Your task to perform on an android device: When is my next meeting? Image 0: 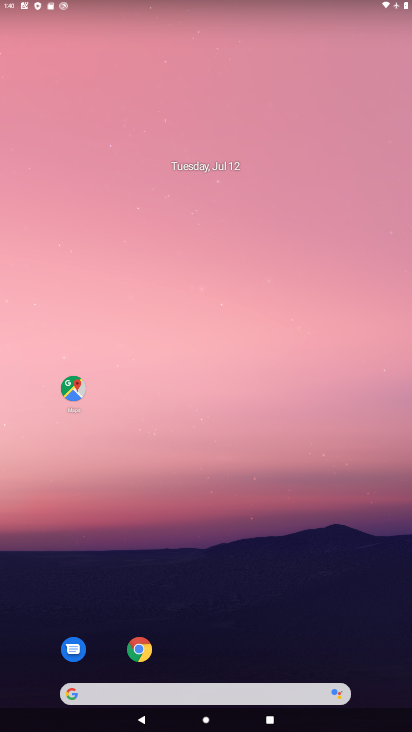
Step 0: drag from (272, 616) to (231, 134)
Your task to perform on an android device: When is my next meeting? Image 1: 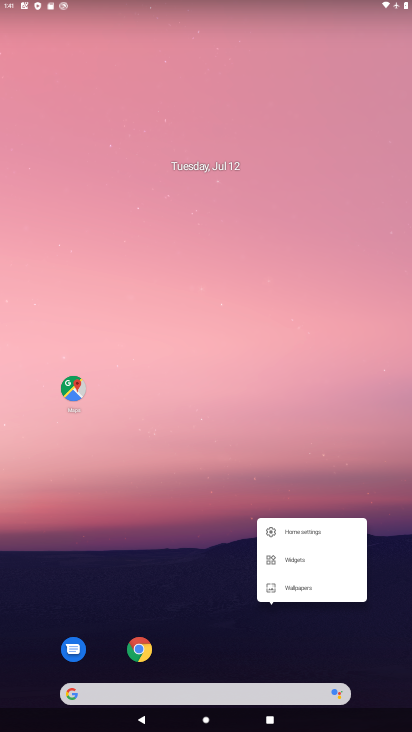
Step 1: click (199, 393)
Your task to perform on an android device: When is my next meeting? Image 2: 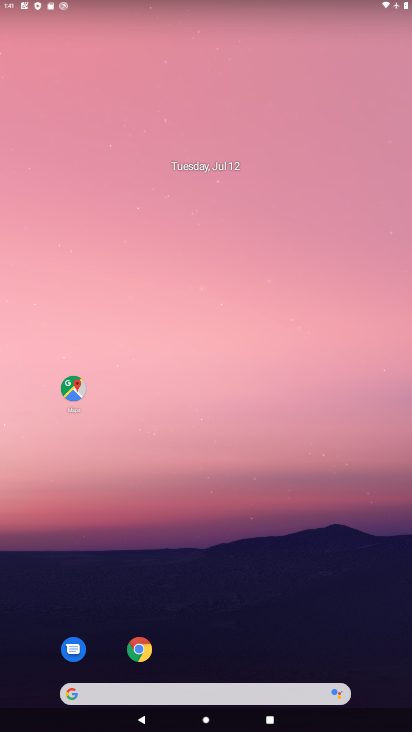
Step 2: drag from (207, 648) to (181, 287)
Your task to perform on an android device: When is my next meeting? Image 3: 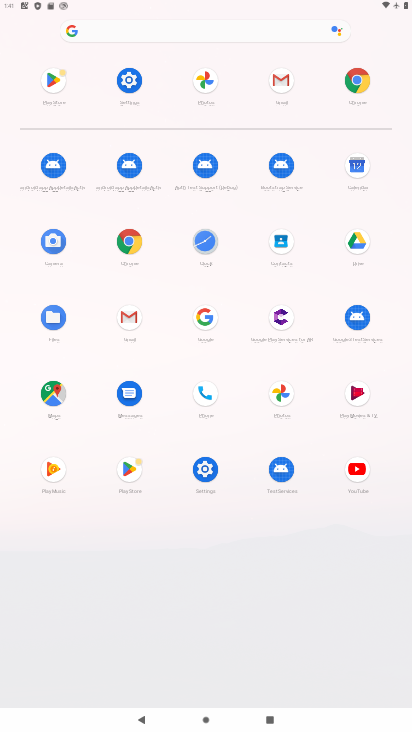
Step 3: click (140, 85)
Your task to perform on an android device: When is my next meeting? Image 4: 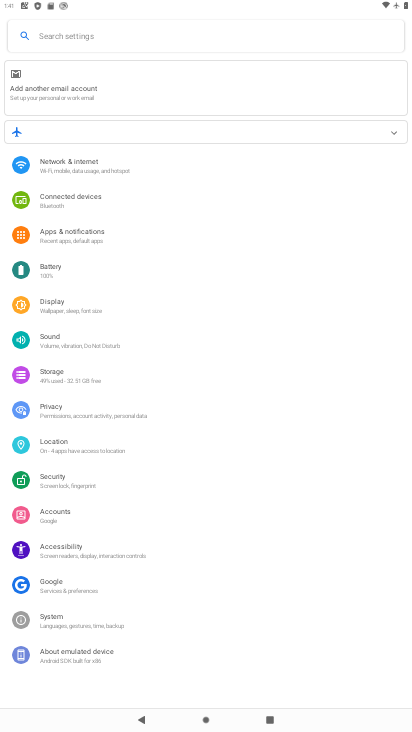
Step 4: press home button
Your task to perform on an android device: When is my next meeting? Image 5: 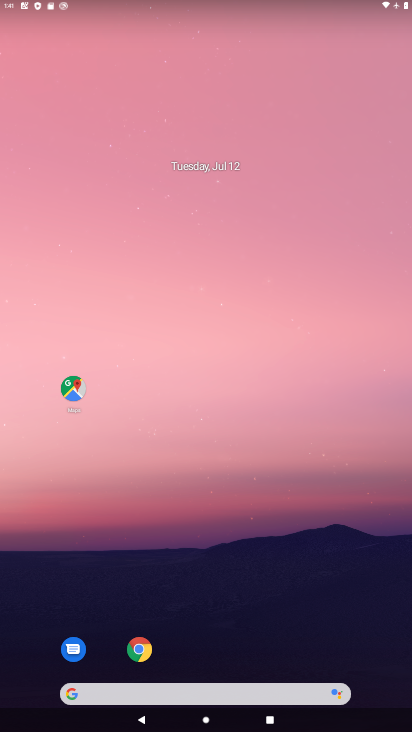
Step 5: drag from (227, 640) to (113, 204)
Your task to perform on an android device: When is my next meeting? Image 6: 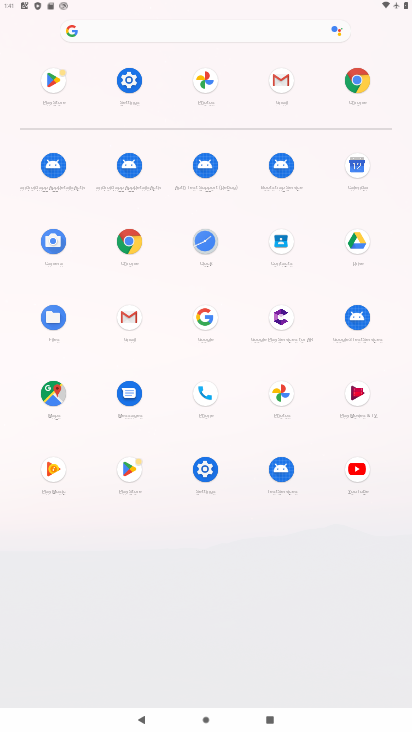
Step 6: click (356, 161)
Your task to perform on an android device: When is my next meeting? Image 7: 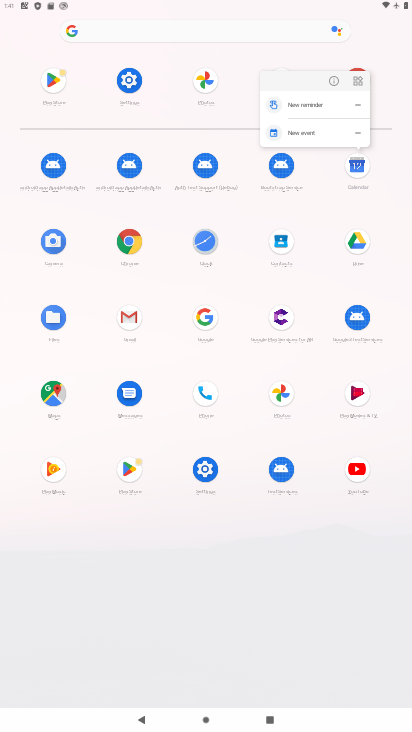
Step 7: click (229, 111)
Your task to perform on an android device: When is my next meeting? Image 8: 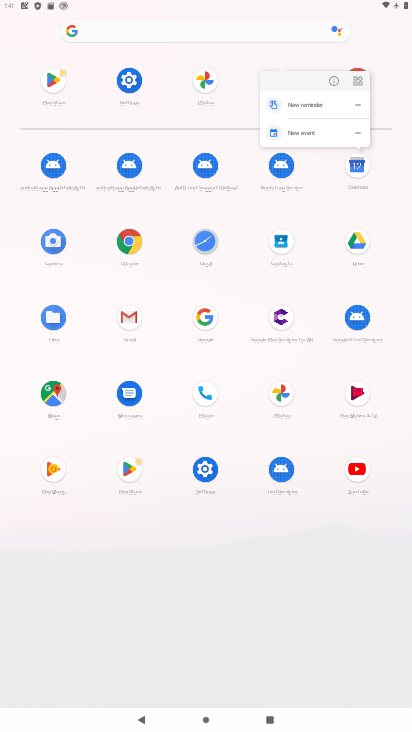
Step 8: click (229, 111)
Your task to perform on an android device: When is my next meeting? Image 9: 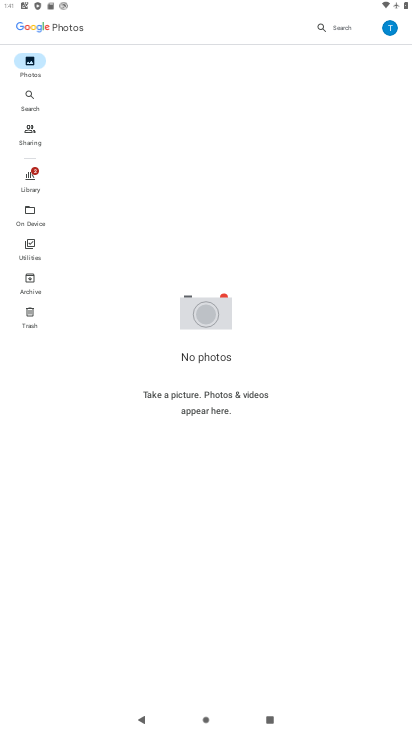
Step 9: task complete